Your task to perform on an android device: Open Chrome and go to settings Image 0: 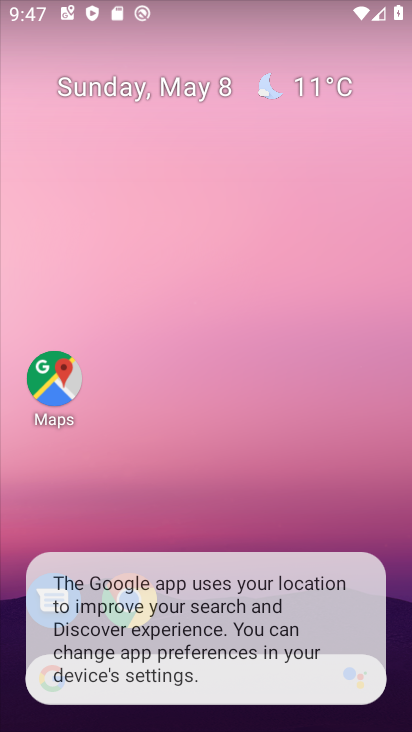
Step 0: drag from (273, 521) to (195, 6)
Your task to perform on an android device: Open Chrome and go to settings Image 1: 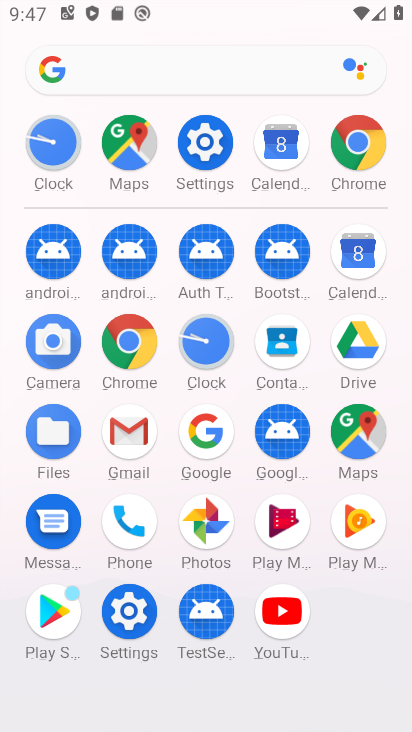
Step 1: drag from (8, 592) to (0, 320)
Your task to perform on an android device: Open Chrome and go to settings Image 2: 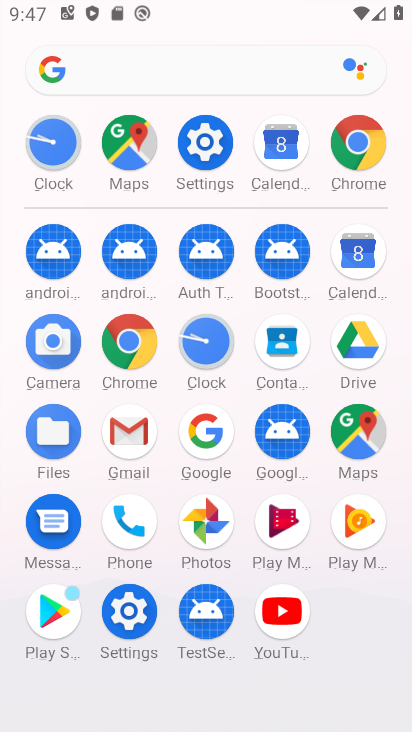
Step 2: click (128, 336)
Your task to perform on an android device: Open Chrome and go to settings Image 3: 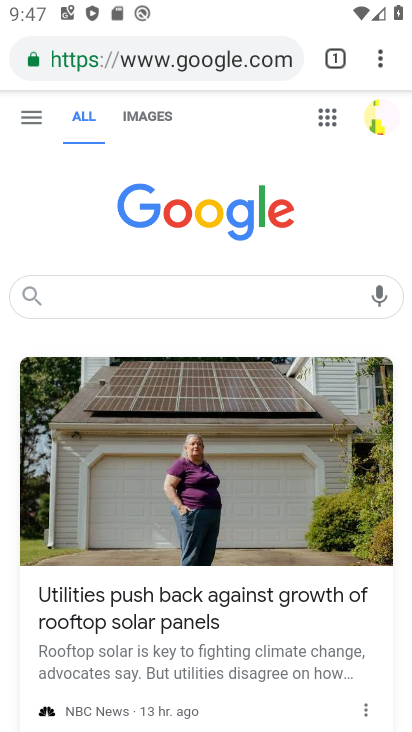
Step 3: task complete